Your task to perform on an android device: Open eBay Image 0: 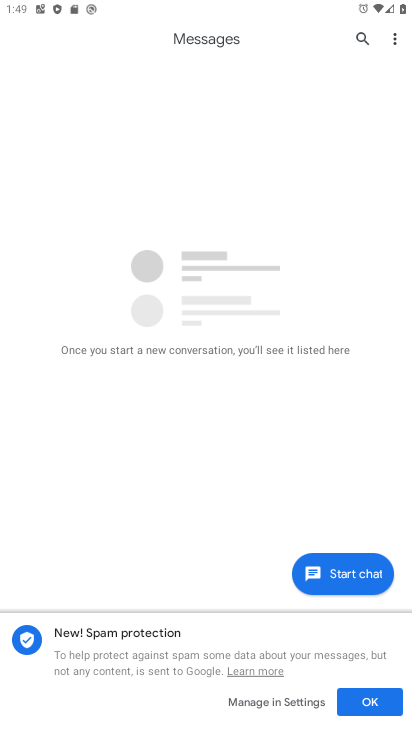
Step 0: click (133, 622)
Your task to perform on an android device: Open eBay Image 1: 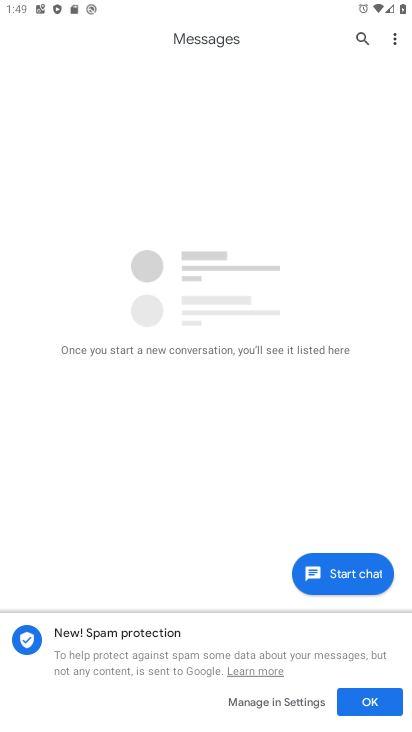
Step 1: press home button
Your task to perform on an android device: Open eBay Image 2: 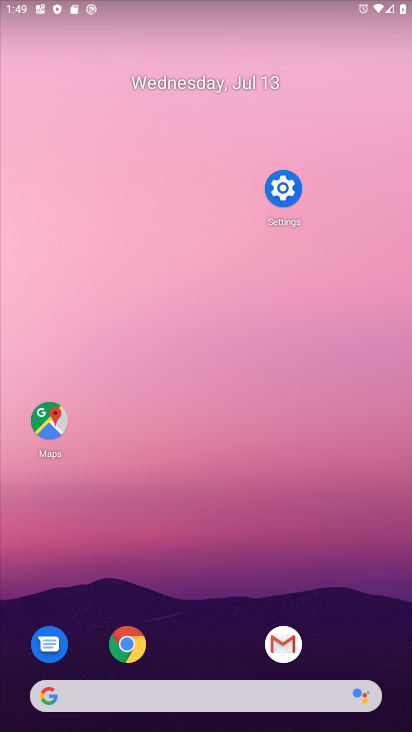
Step 2: click (137, 627)
Your task to perform on an android device: Open eBay Image 3: 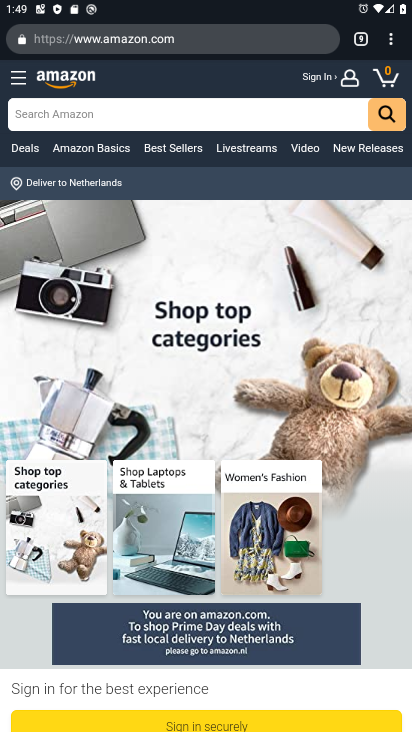
Step 3: click (366, 39)
Your task to perform on an android device: Open eBay Image 4: 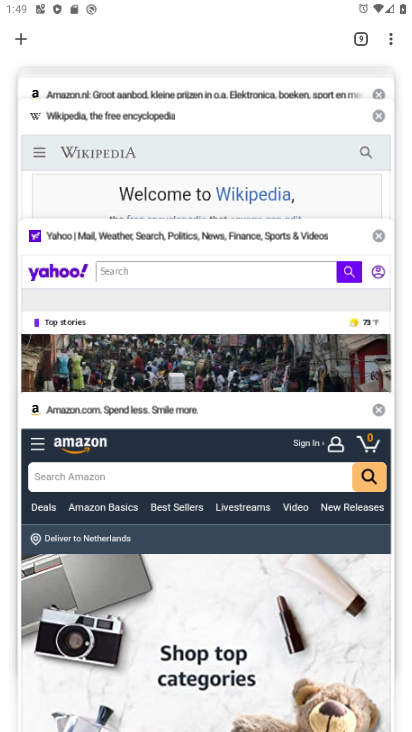
Step 4: click (25, 39)
Your task to perform on an android device: Open eBay Image 5: 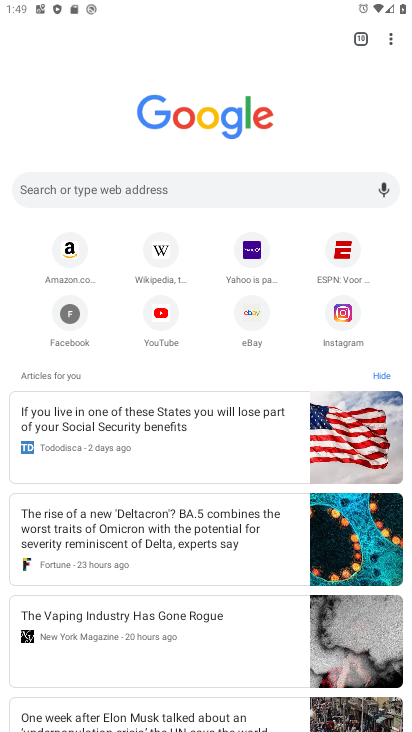
Step 5: click (245, 314)
Your task to perform on an android device: Open eBay Image 6: 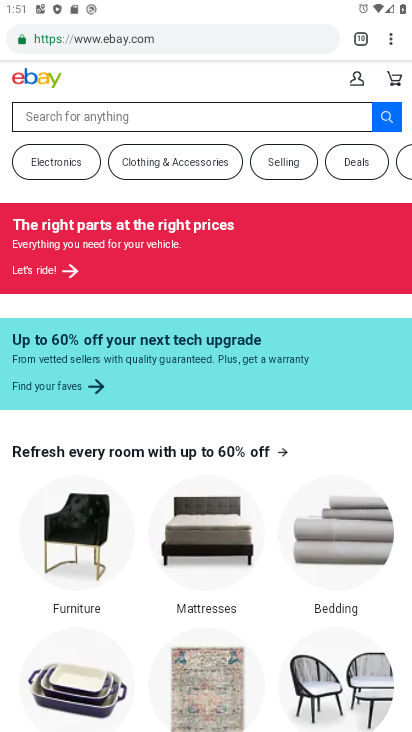
Step 6: task complete